Your task to perform on an android device: set the stopwatch Image 0: 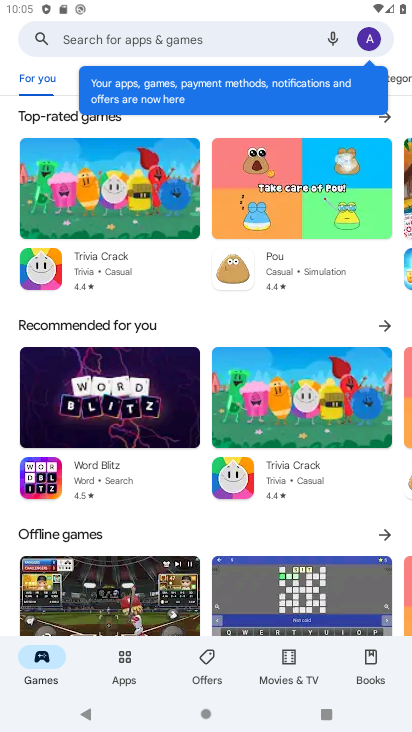
Step 0: press back button
Your task to perform on an android device: set the stopwatch Image 1: 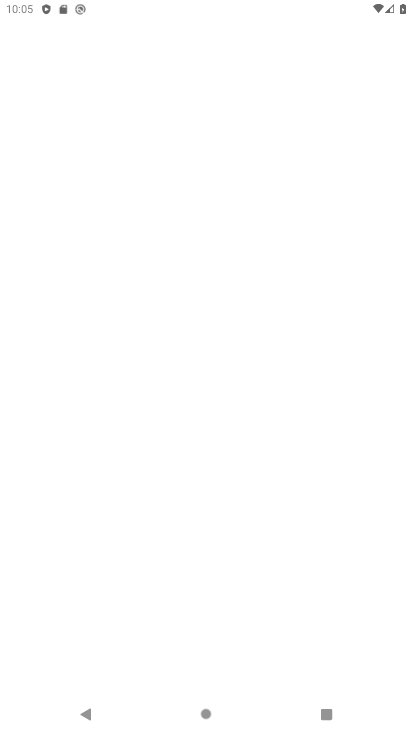
Step 1: press back button
Your task to perform on an android device: set the stopwatch Image 2: 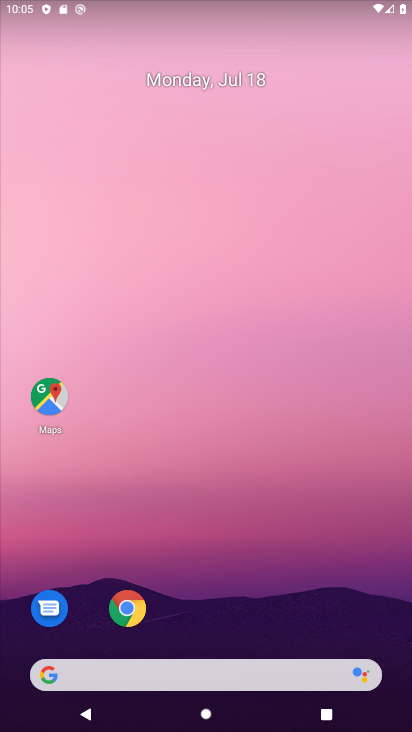
Step 2: drag from (262, 319) to (254, 249)
Your task to perform on an android device: set the stopwatch Image 3: 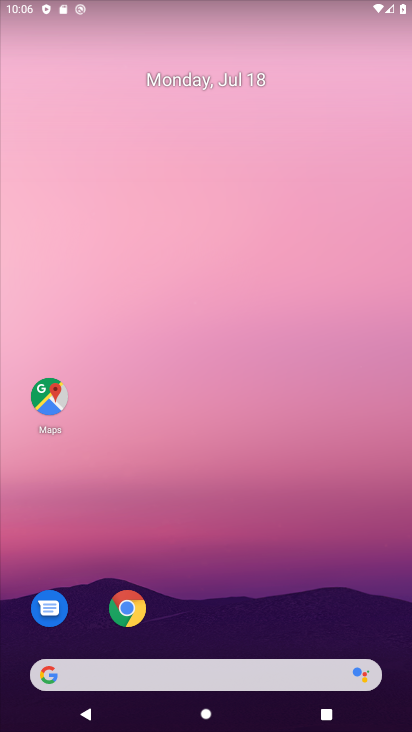
Step 3: drag from (250, 597) to (283, 92)
Your task to perform on an android device: set the stopwatch Image 4: 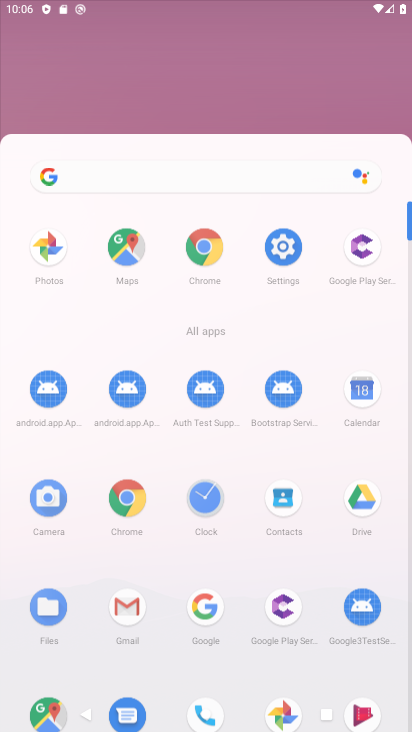
Step 4: drag from (281, 468) to (281, 125)
Your task to perform on an android device: set the stopwatch Image 5: 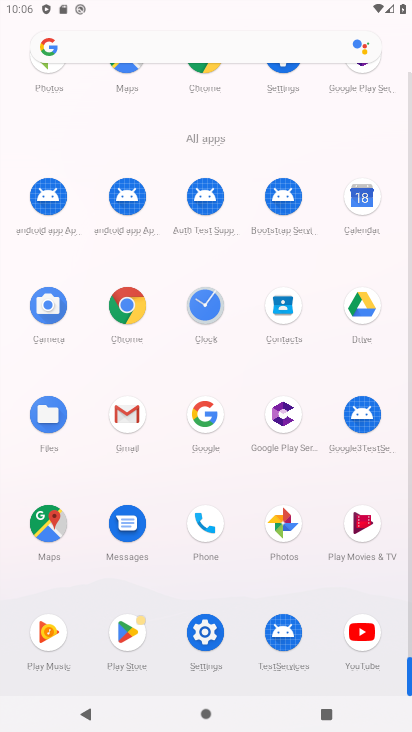
Step 5: click (215, 307)
Your task to perform on an android device: set the stopwatch Image 6: 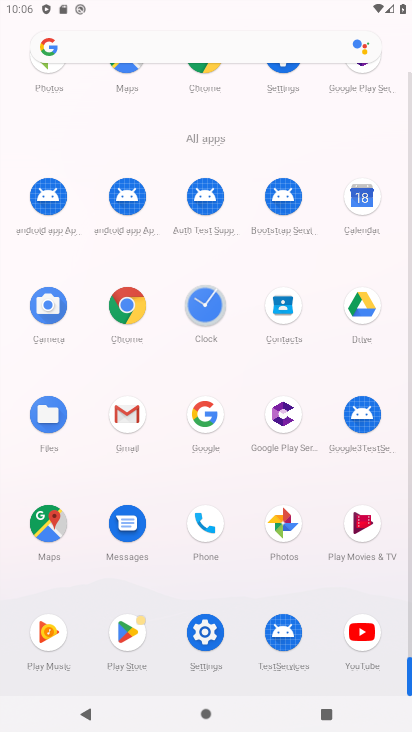
Step 6: click (215, 307)
Your task to perform on an android device: set the stopwatch Image 7: 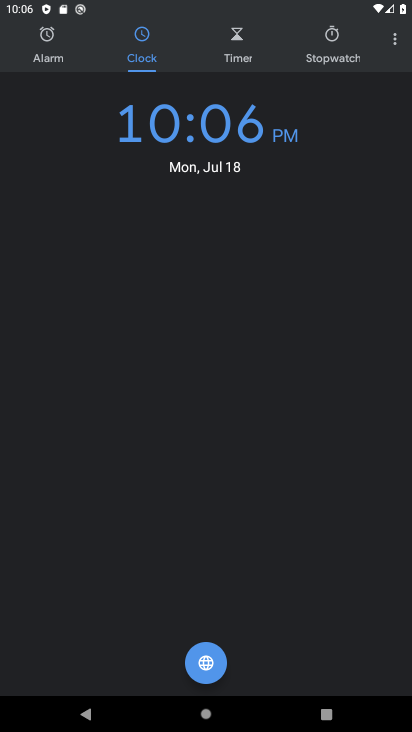
Step 7: click (326, 54)
Your task to perform on an android device: set the stopwatch Image 8: 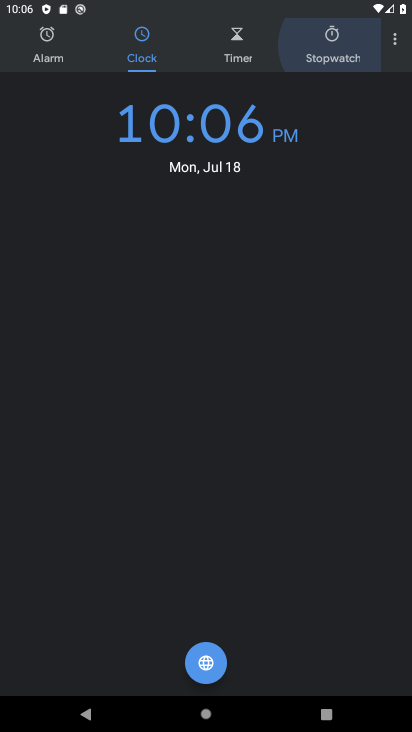
Step 8: click (324, 53)
Your task to perform on an android device: set the stopwatch Image 9: 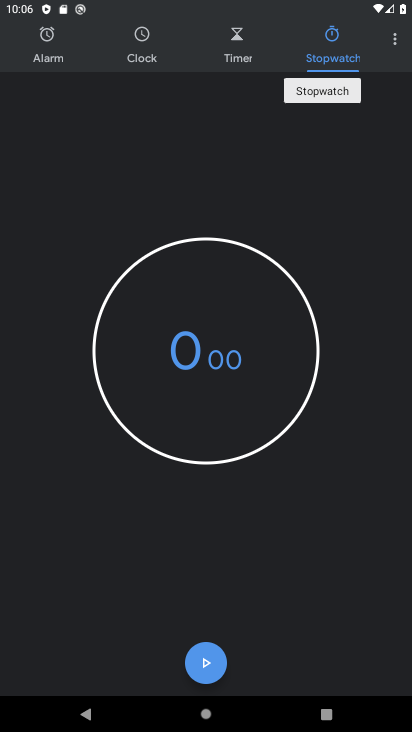
Step 9: click (210, 654)
Your task to perform on an android device: set the stopwatch Image 10: 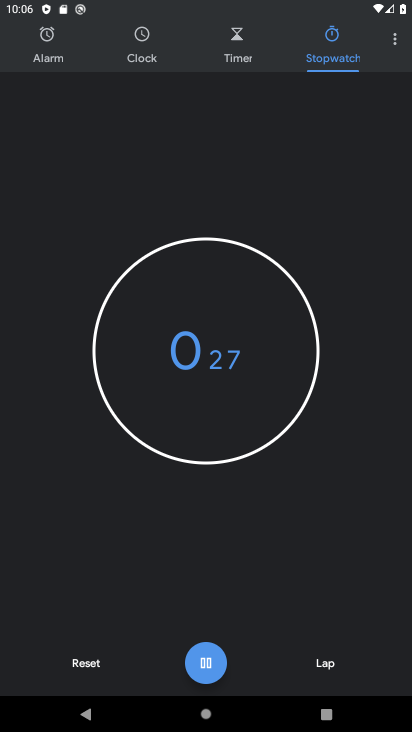
Step 10: click (210, 655)
Your task to perform on an android device: set the stopwatch Image 11: 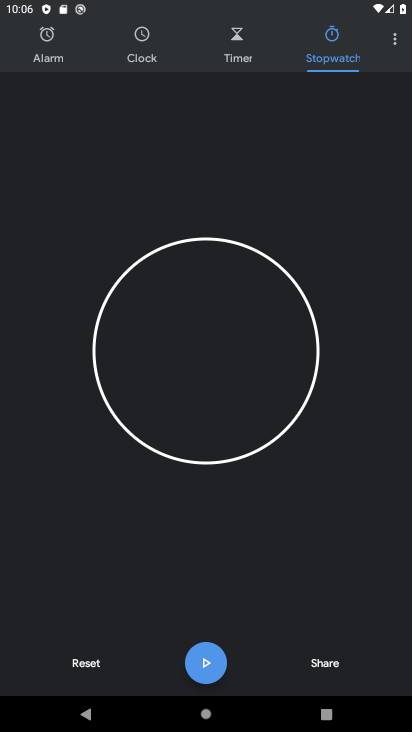
Step 11: click (202, 662)
Your task to perform on an android device: set the stopwatch Image 12: 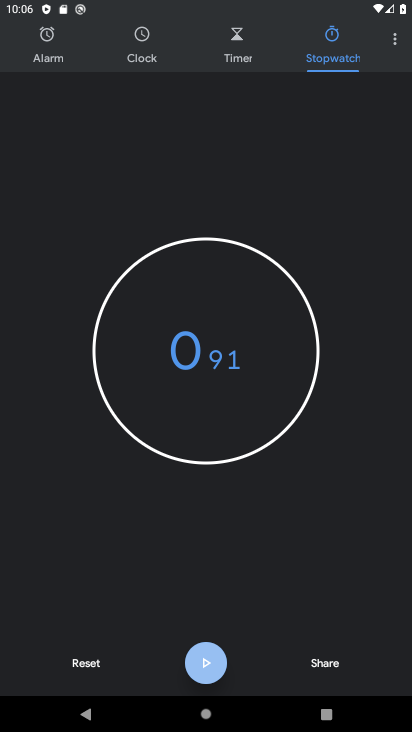
Step 12: click (205, 660)
Your task to perform on an android device: set the stopwatch Image 13: 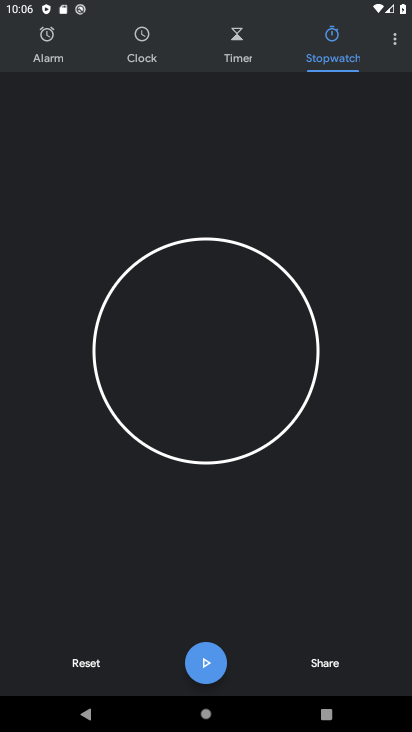
Step 13: click (205, 660)
Your task to perform on an android device: set the stopwatch Image 14: 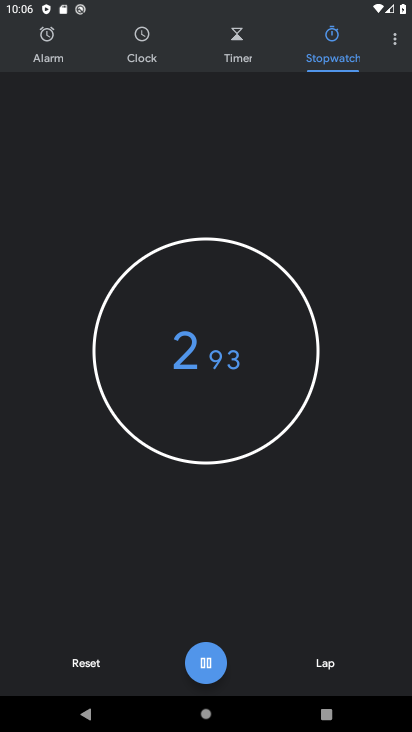
Step 14: task complete